Your task to perform on an android device: Show me productivity apps on the Play Store Image 0: 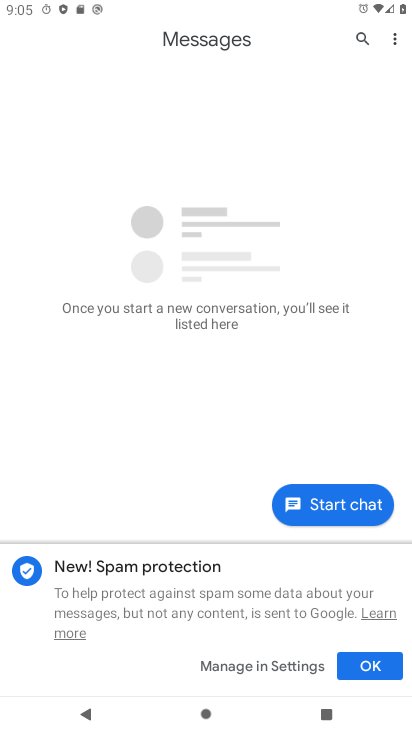
Step 0: press home button
Your task to perform on an android device: Show me productivity apps on the Play Store Image 1: 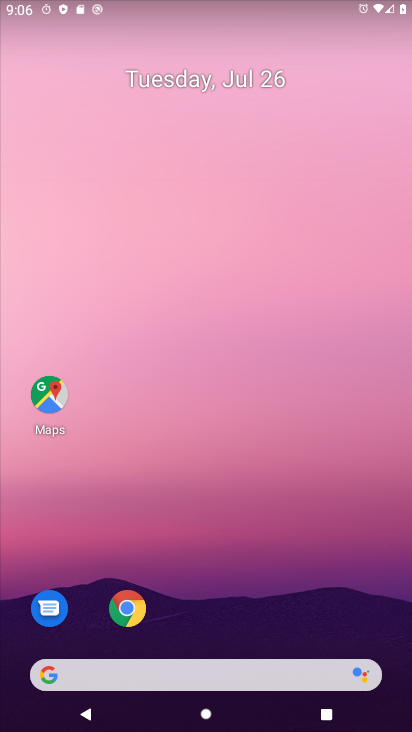
Step 1: drag from (265, 613) to (224, 152)
Your task to perform on an android device: Show me productivity apps on the Play Store Image 2: 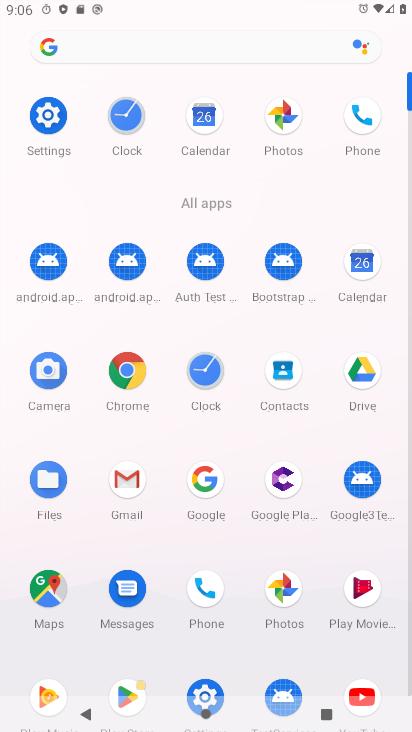
Step 2: click (126, 689)
Your task to perform on an android device: Show me productivity apps on the Play Store Image 3: 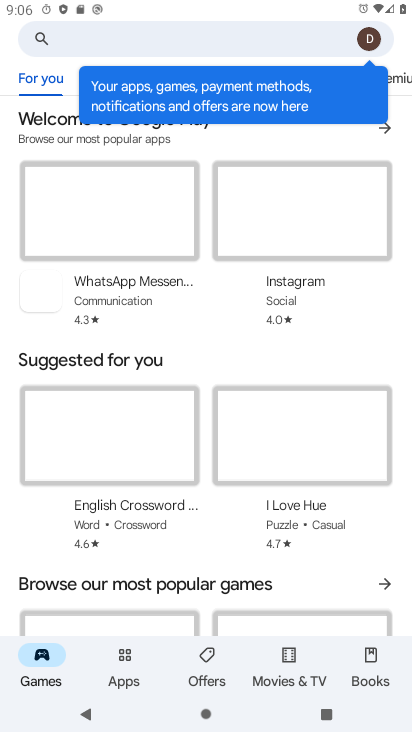
Step 3: click (128, 654)
Your task to perform on an android device: Show me productivity apps on the Play Store Image 4: 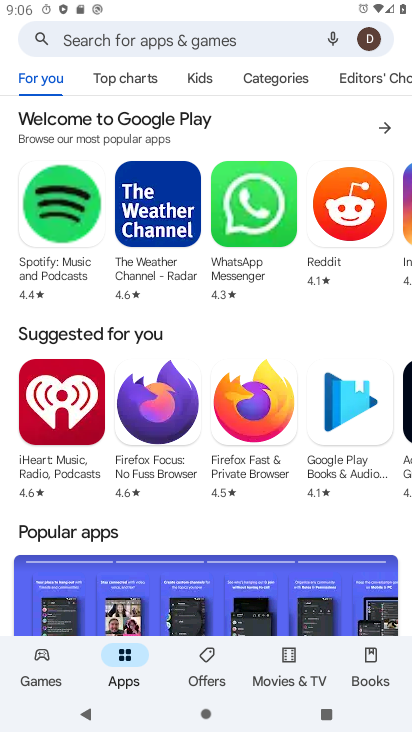
Step 4: click (273, 71)
Your task to perform on an android device: Show me productivity apps on the Play Store Image 5: 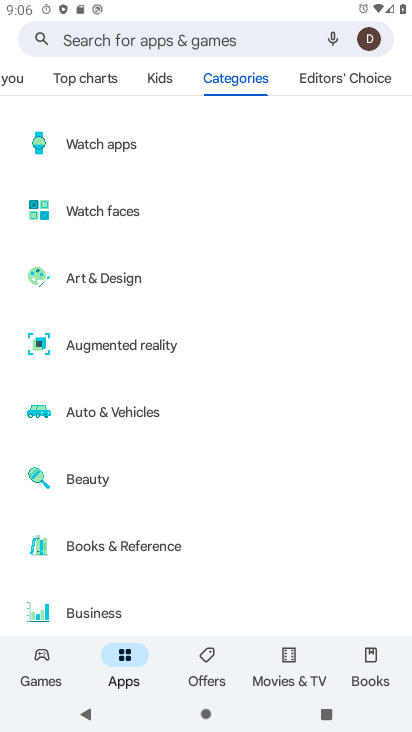
Step 5: drag from (342, 514) to (301, 14)
Your task to perform on an android device: Show me productivity apps on the Play Store Image 6: 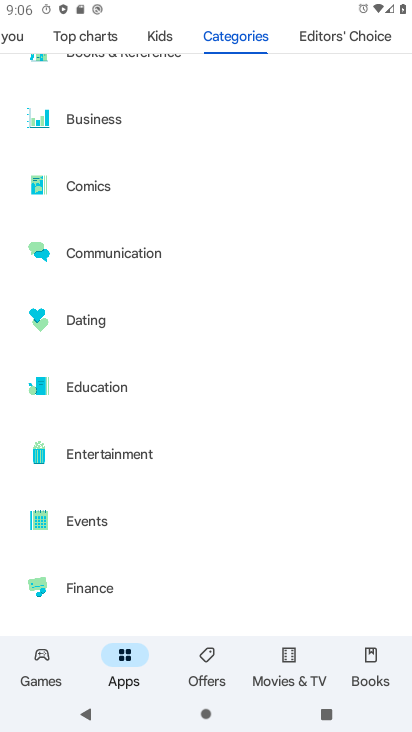
Step 6: drag from (328, 509) to (303, 191)
Your task to perform on an android device: Show me productivity apps on the Play Store Image 7: 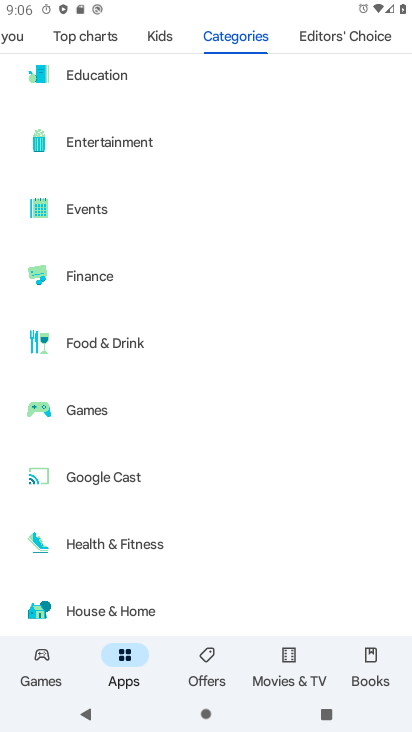
Step 7: drag from (287, 493) to (270, 199)
Your task to perform on an android device: Show me productivity apps on the Play Store Image 8: 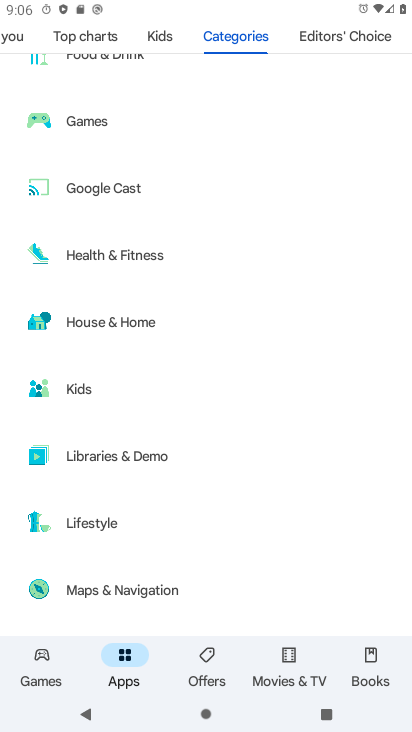
Step 8: drag from (301, 595) to (291, 220)
Your task to perform on an android device: Show me productivity apps on the Play Store Image 9: 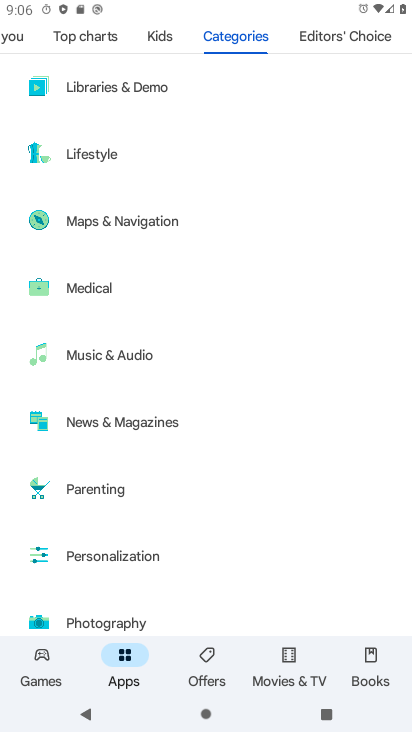
Step 9: drag from (201, 591) to (184, 219)
Your task to perform on an android device: Show me productivity apps on the Play Store Image 10: 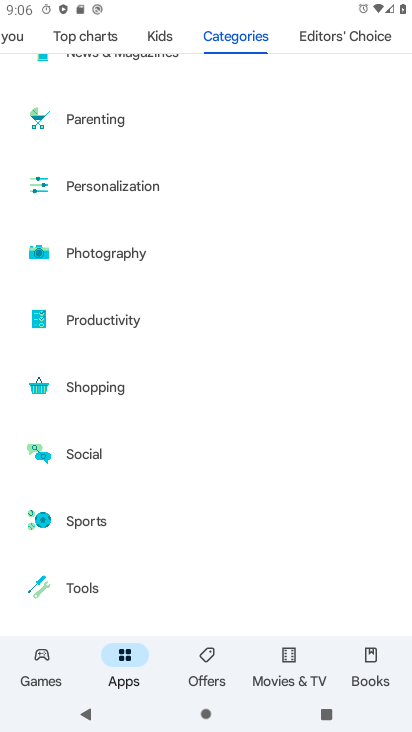
Step 10: click (122, 321)
Your task to perform on an android device: Show me productivity apps on the Play Store Image 11: 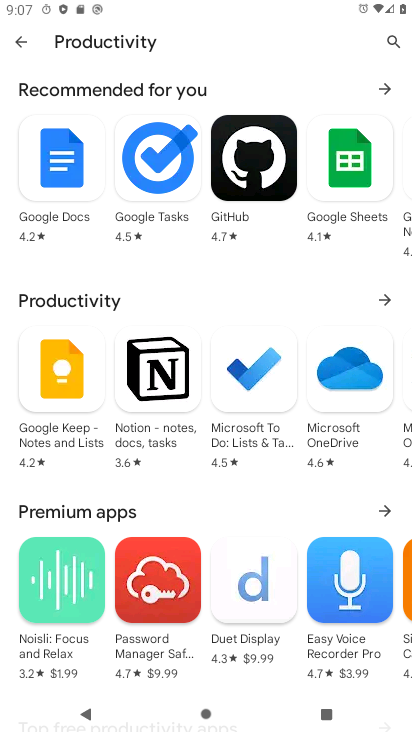
Step 11: task complete